Your task to perform on an android device: Go to ESPN.com Image 0: 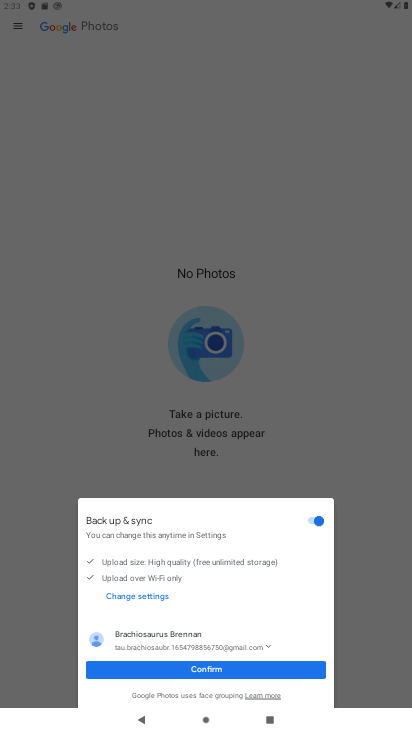
Step 0: press home button
Your task to perform on an android device: Go to ESPN.com Image 1: 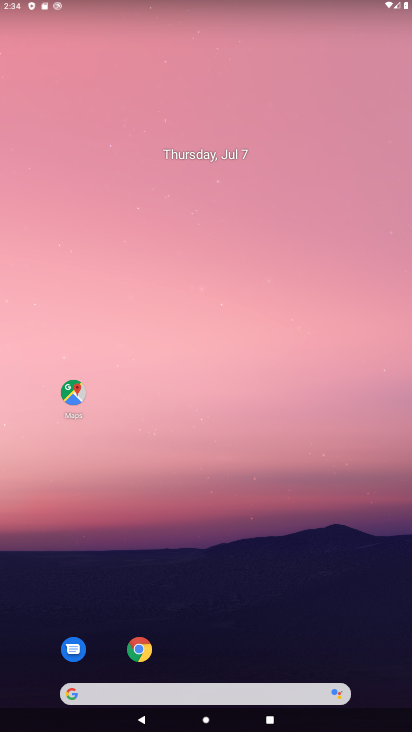
Step 1: drag from (234, 674) to (277, 59)
Your task to perform on an android device: Go to ESPN.com Image 2: 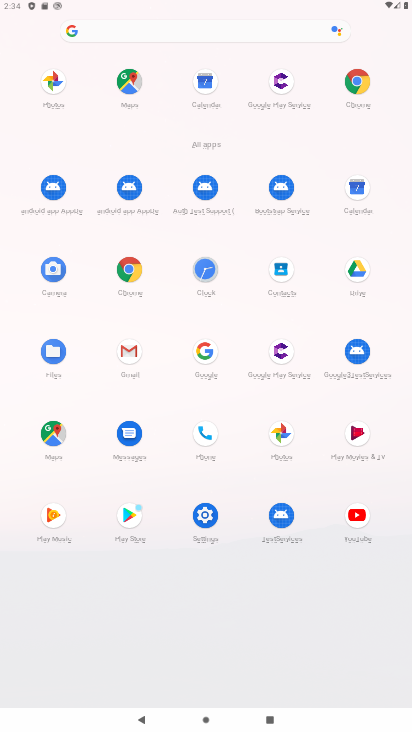
Step 2: click (195, 355)
Your task to perform on an android device: Go to ESPN.com Image 3: 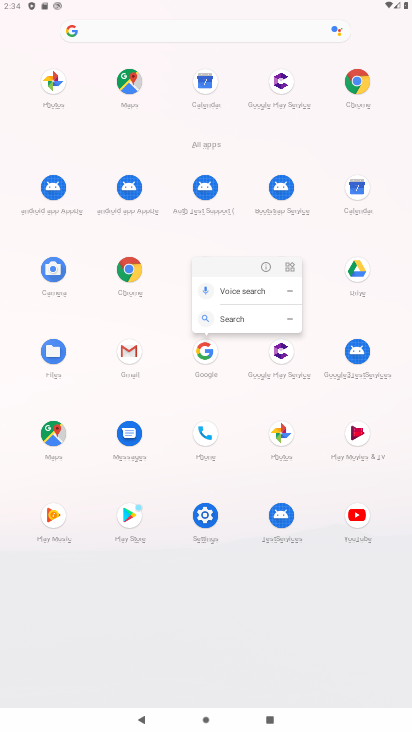
Step 3: click (195, 355)
Your task to perform on an android device: Go to ESPN.com Image 4: 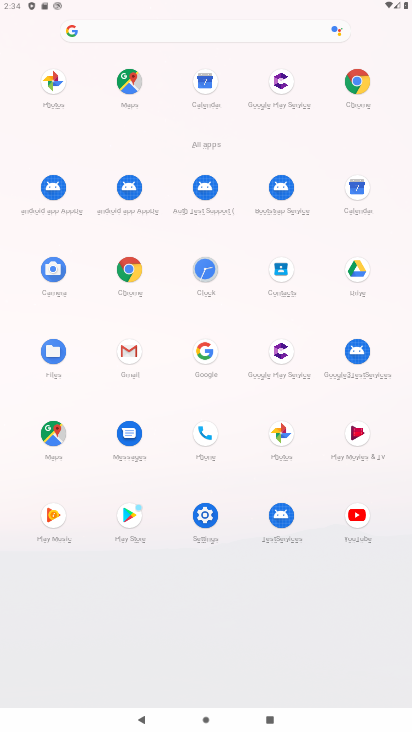
Step 4: click (195, 355)
Your task to perform on an android device: Go to ESPN.com Image 5: 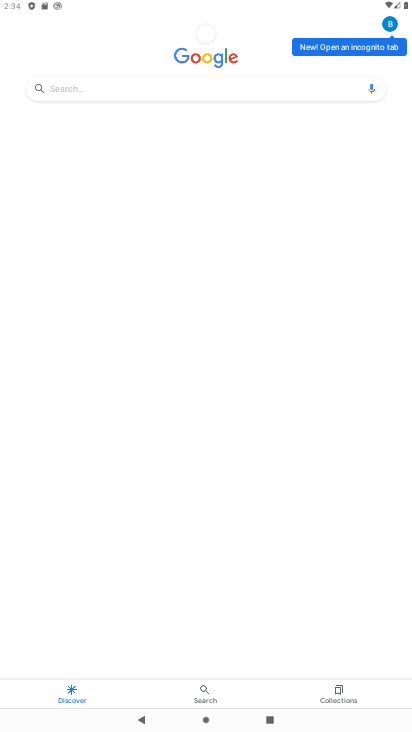
Step 5: click (202, 91)
Your task to perform on an android device: Go to ESPN.com Image 6: 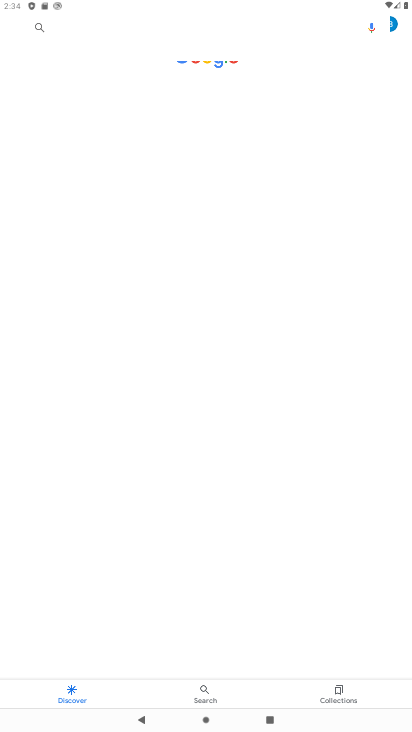
Step 6: click (202, 82)
Your task to perform on an android device: Go to ESPN.com Image 7: 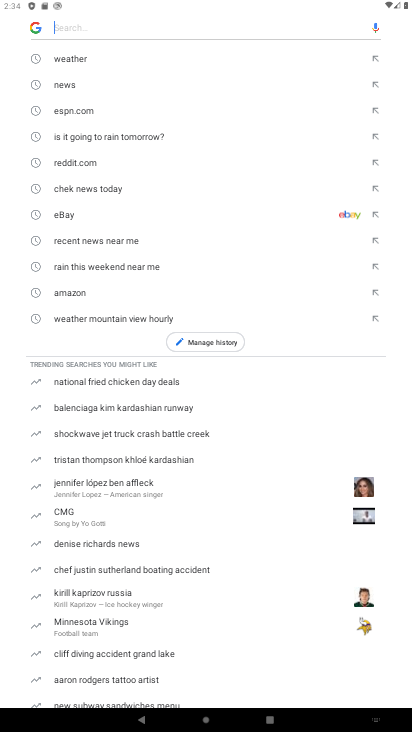
Step 7: type "ES"
Your task to perform on an android device: Go to ESPN.com Image 8: 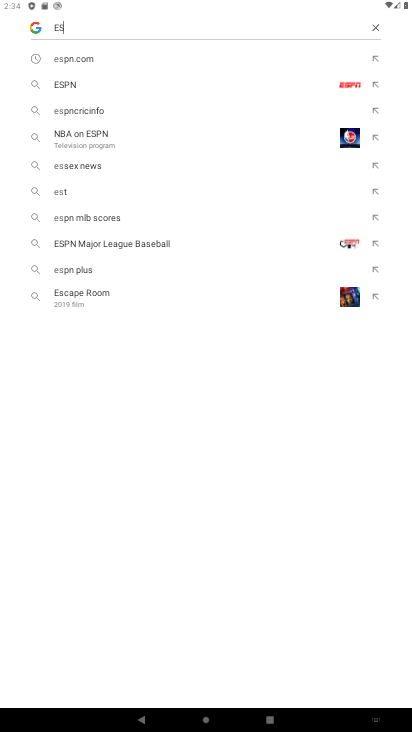
Step 8: click (374, 29)
Your task to perform on an android device: Go to ESPN.com Image 9: 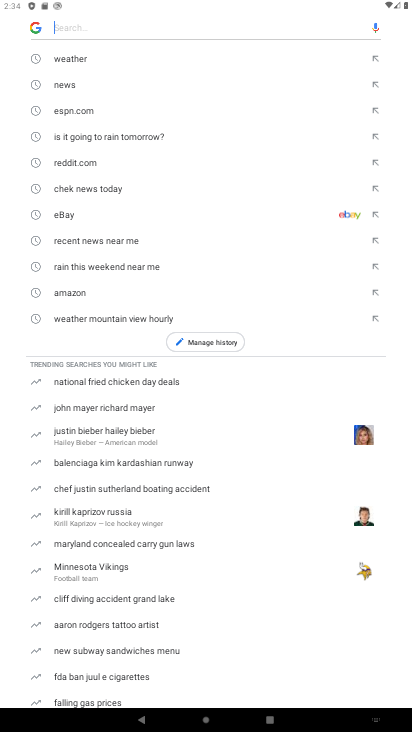
Step 9: click (313, 27)
Your task to perform on an android device: Go to ESPN.com Image 10: 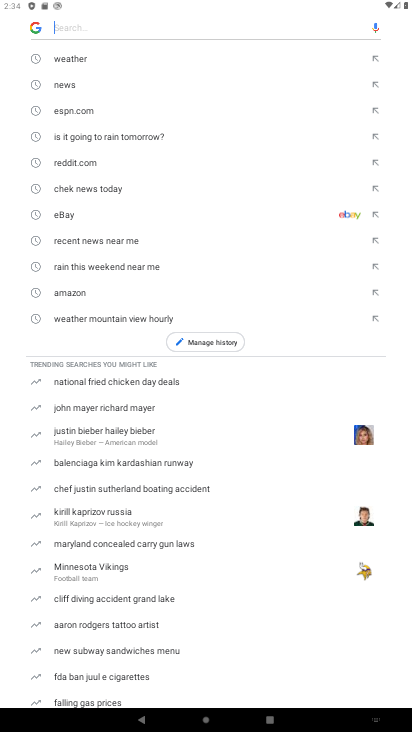
Step 10: type "ESPN.com"
Your task to perform on an android device: Go to ESPN.com Image 11: 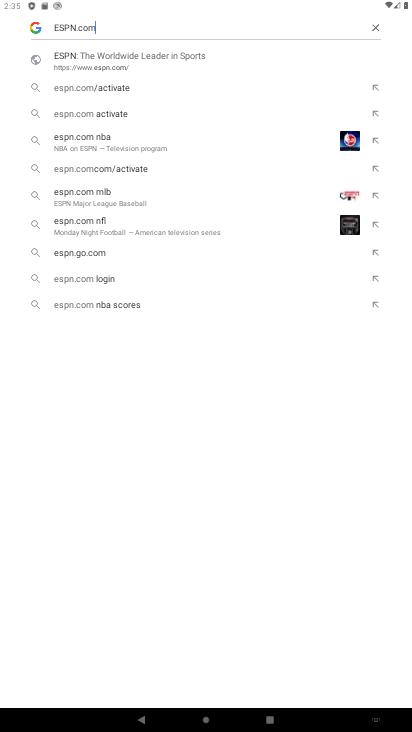
Step 11: click (112, 287)
Your task to perform on an android device: Go to ESPN.com Image 12: 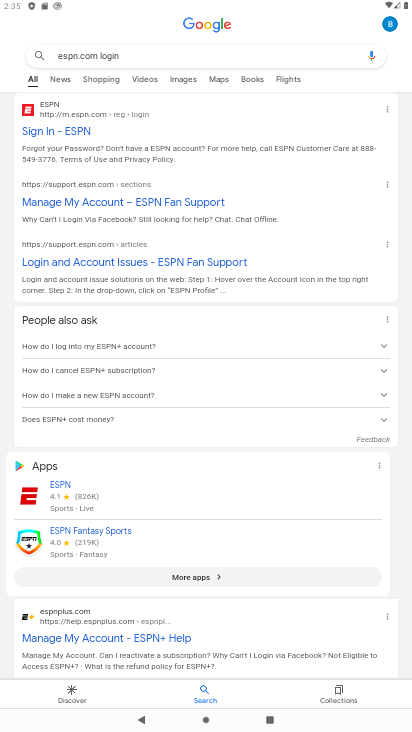
Step 12: task complete